Your task to perform on an android device: Is it going to rain this weekend? Image 0: 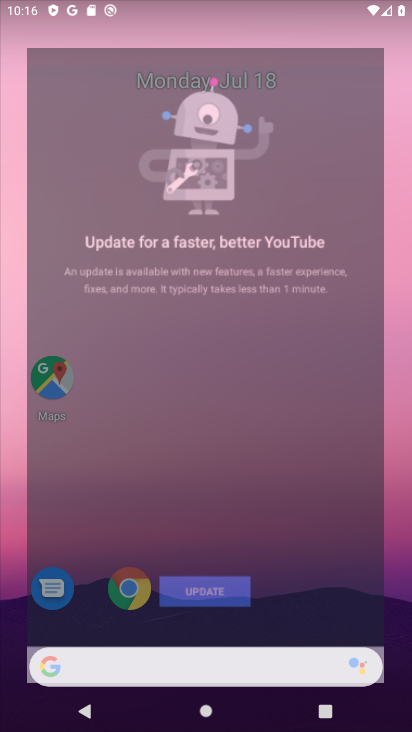
Step 0: press home button
Your task to perform on an android device: Is it going to rain this weekend? Image 1: 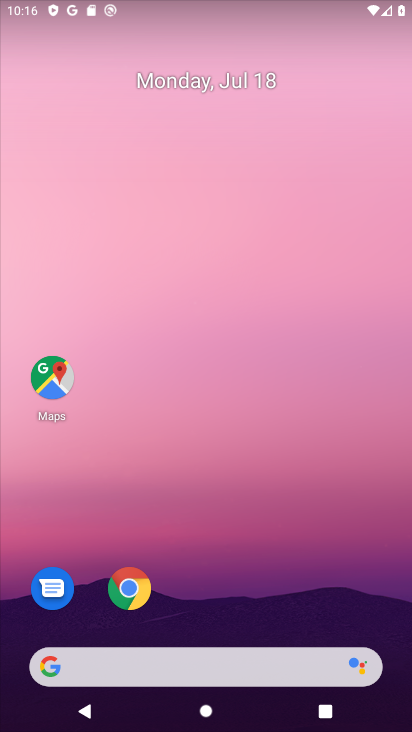
Step 1: drag from (249, 625) to (275, 100)
Your task to perform on an android device: Is it going to rain this weekend? Image 2: 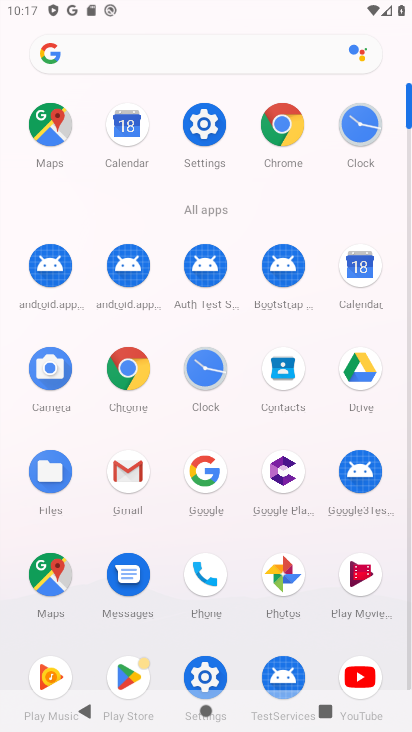
Step 2: click (305, 112)
Your task to perform on an android device: Is it going to rain this weekend? Image 3: 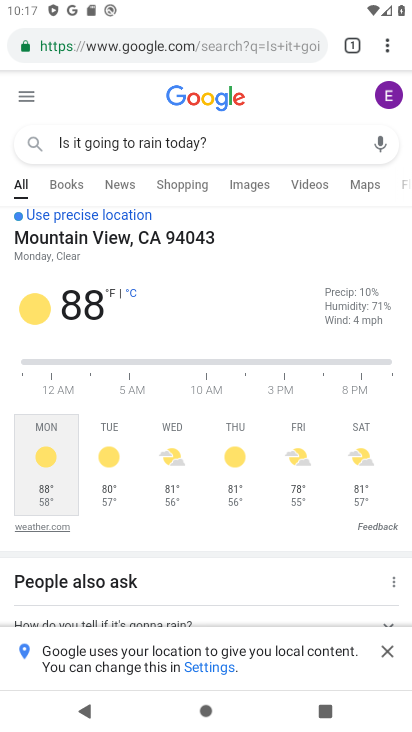
Step 3: task complete